Your task to perform on an android device: turn on showing notifications on the lock screen Image 0: 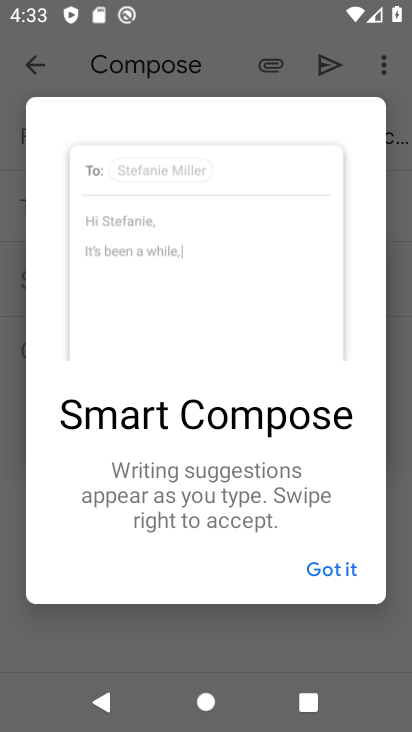
Step 0: press home button
Your task to perform on an android device: turn on showing notifications on the lock screen Image 1: 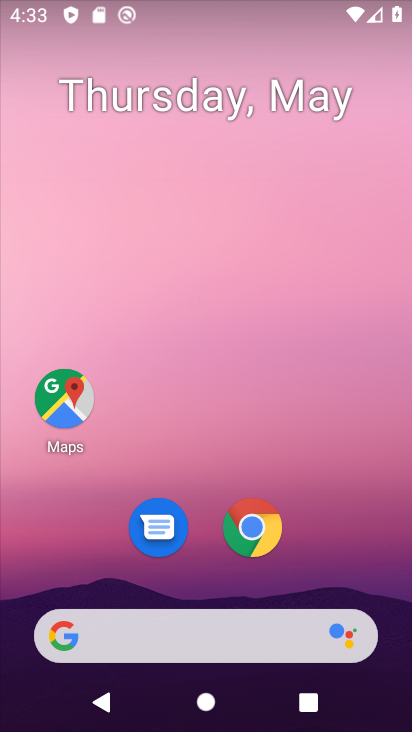
Step 1: drag from (326, 513) to (359, 120)
Your task to perform on an android device: turn on showing notifications on the lock screen Image 2: 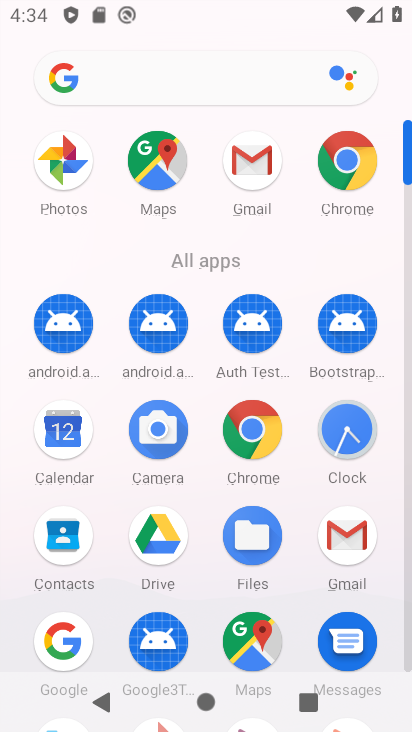
Step 2: drag from (235, 592) to (199, 205)
Your task to perform on an android device: turn on showing notifications on the lock screen Image 3: 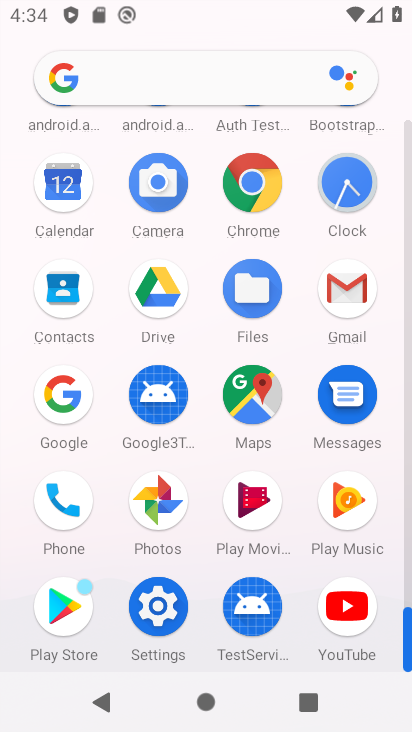
Step 3: drag from (225, 610) to (213, 310)
Your task to perform on an android device: turn on showing notifications on the lock screen Image 4: 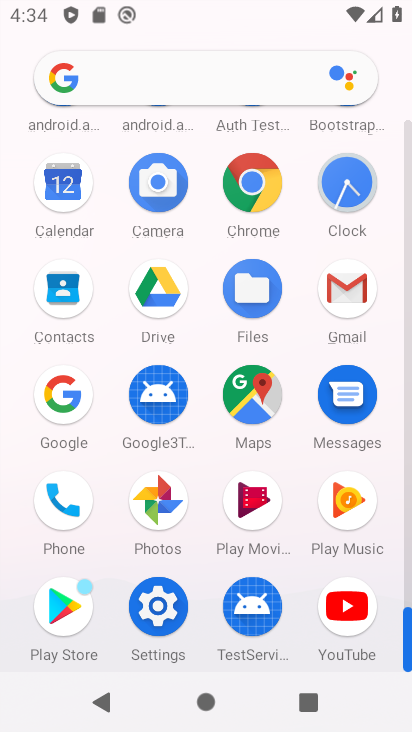
Step 4: click (143, 608)
Your task to perform on an android device: turn on showing notifications on the lock screen Image 5: 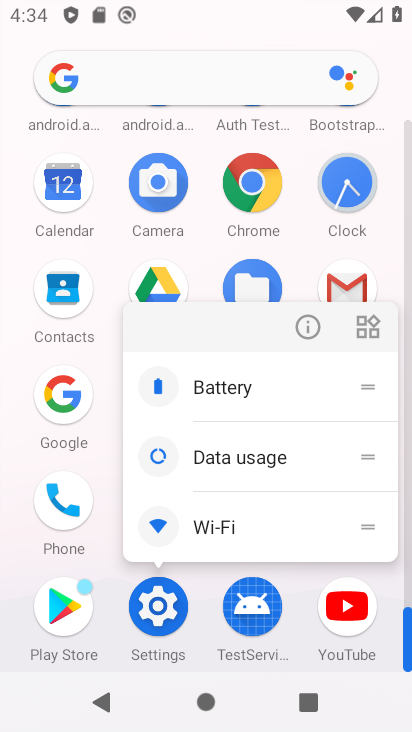
Step 5: click (160, 614)
Your task to perform on an android device: turn on showing notifications on the lock screen Image 6: 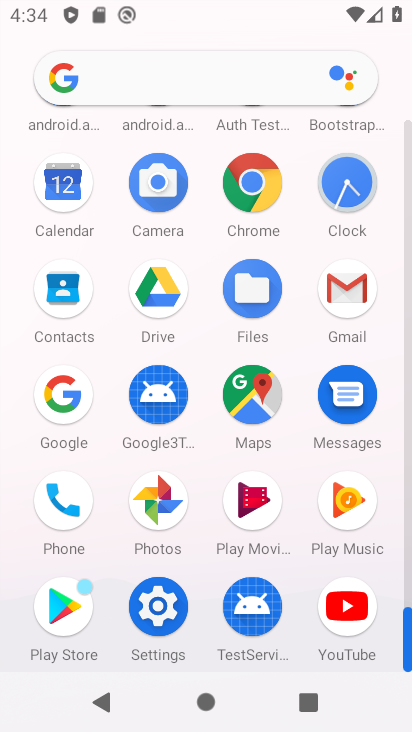
Step 6: click (161, 615)
Your task to perform on an android device: turn on showing notifications on the lock screen Image 7: 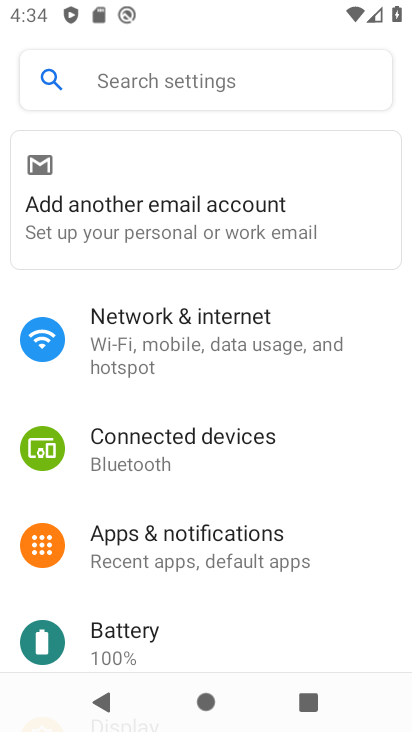
Step 7: click (210, 550)
Your task to perform on an android device: turn on showing notifications on the lock screen Image 8: 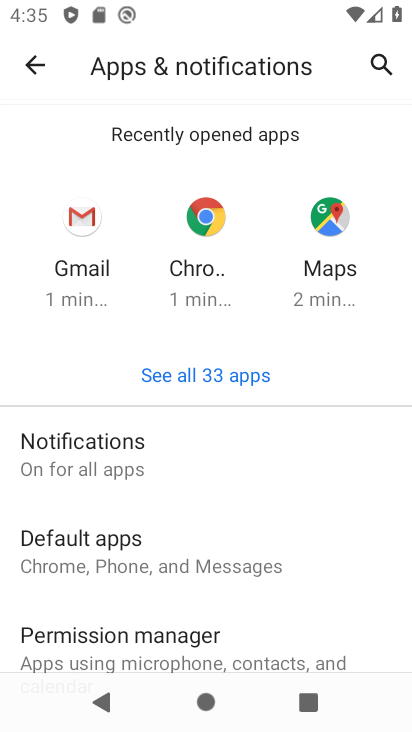
Step 8: click (105, 457)
Your task to perform on an android device: turn on showing notifications on the lock screen Image 9: 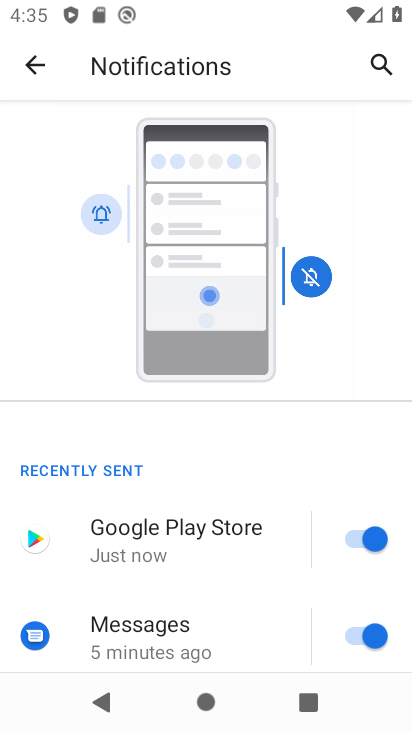
Step 9: drag from (199, 591) to (212, 132)
Your task to perform on an android device: turn on showing notifications on the lock screen Image 10: 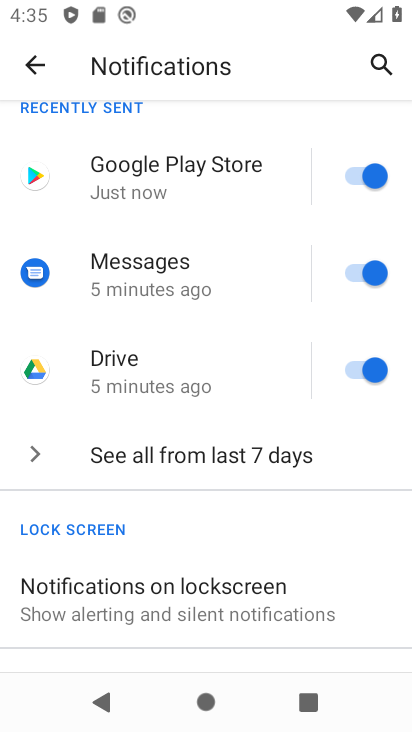
Step 10: click (215, 616)
Your task to perform on an android device: turn on showing notifications on the lock screen Image 11: 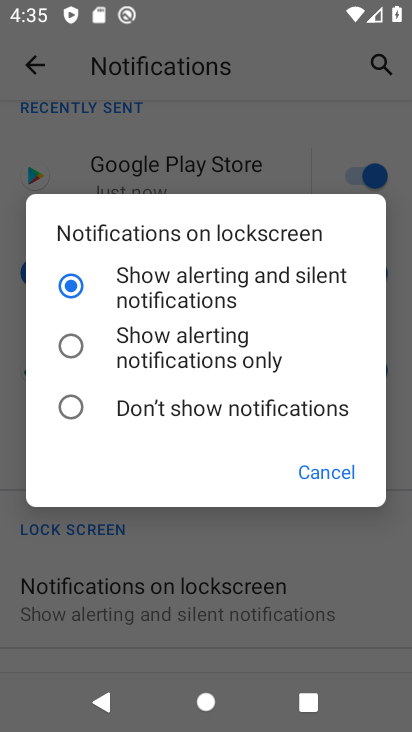
Step 11: task complete